Your task to perform on an android device: Open Google Maps Image 0: 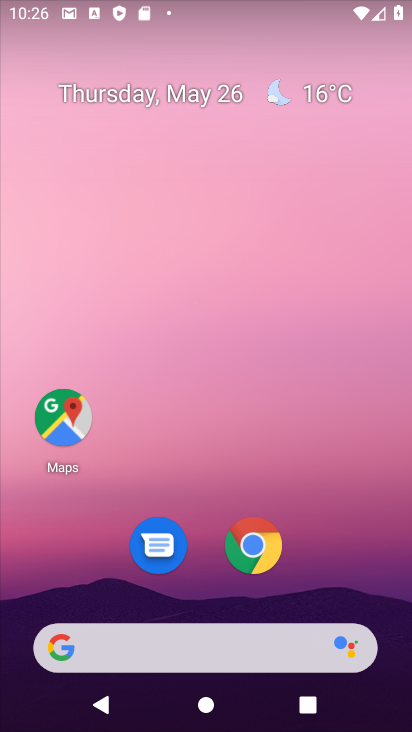
Step 0: press home button
Your task to perform on an android device: Open Google Maps Image 1: 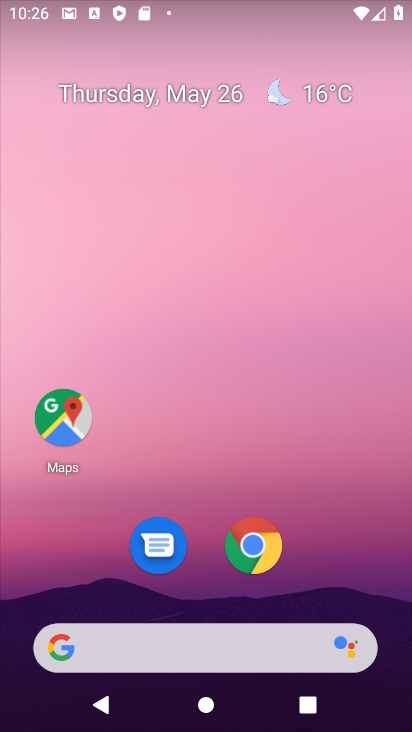
Step 1: click (73, 429)
Your task to perform on an android device: Open Google Maps Image 2: 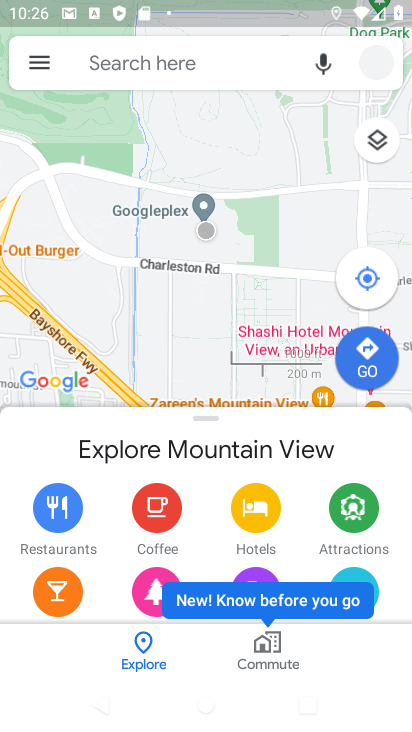
Step 2: task complete